Your task to perform on an android device: What's the weather? Image 0: 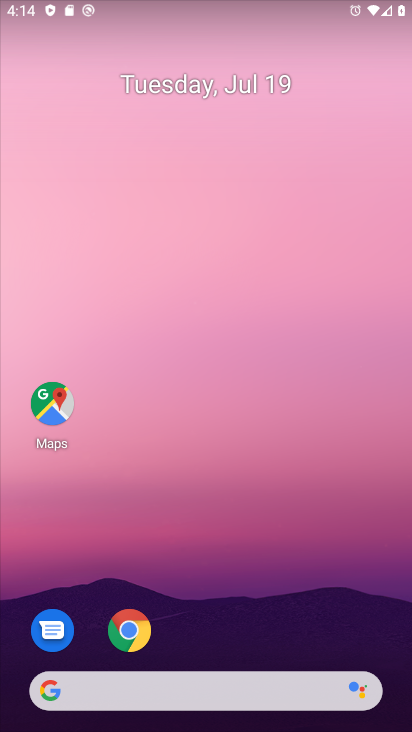
Step 0: click (133, 686)
Your task to perform on an android device: What's the weather? Image 1: 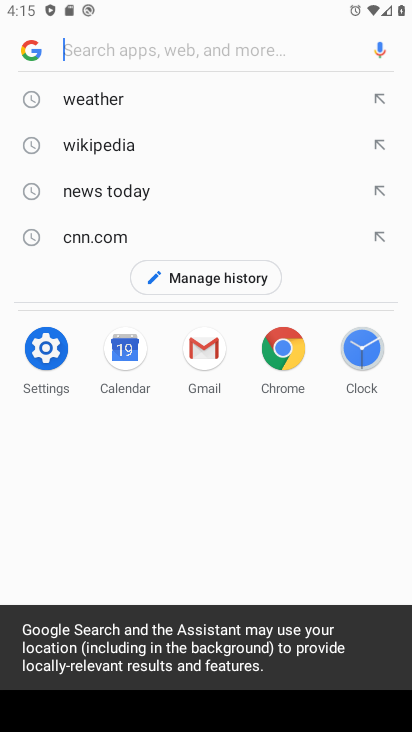
Step 1: click (88, 99)
Your task to perform on an android device: What's the weather? Image 2: 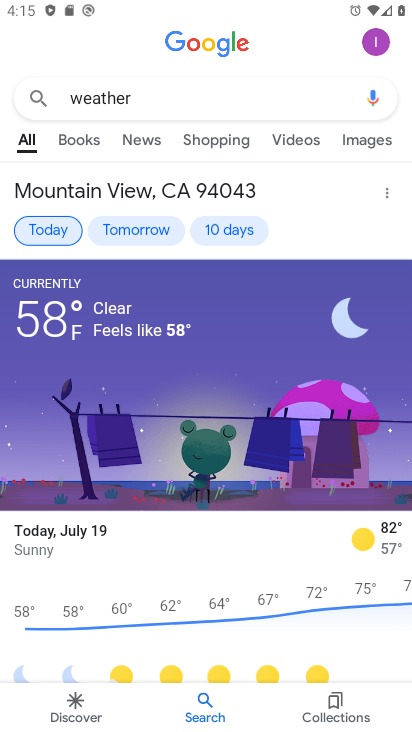
Step 2: task complete